Your task to perform on an android device: Open ESPN.com Image 0: 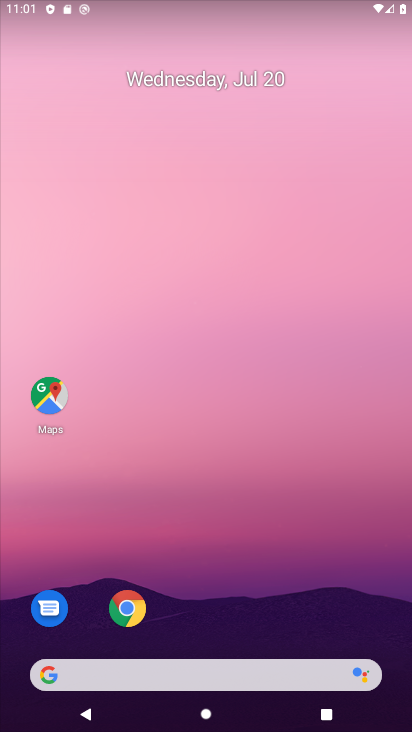
Step 0: drag from (354, 600) to (352, 156)
Your task to perform on an android device: Open ESPN.com Image 1: 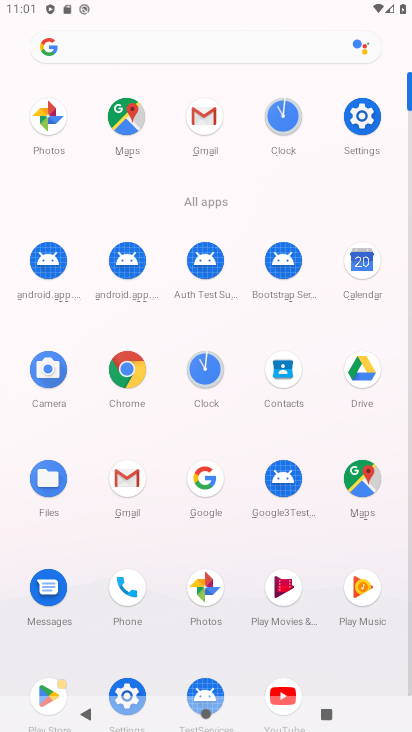
Step 1: click (139, 374)
Your task to perform on an android device: Open ESPN.com Image 2: 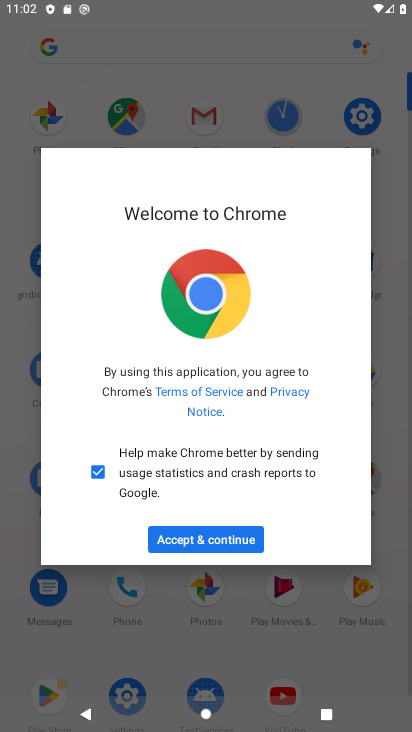
Step 2: click (214, 530)
Your task to perform on an android device: Open ESPN.com Image 3: 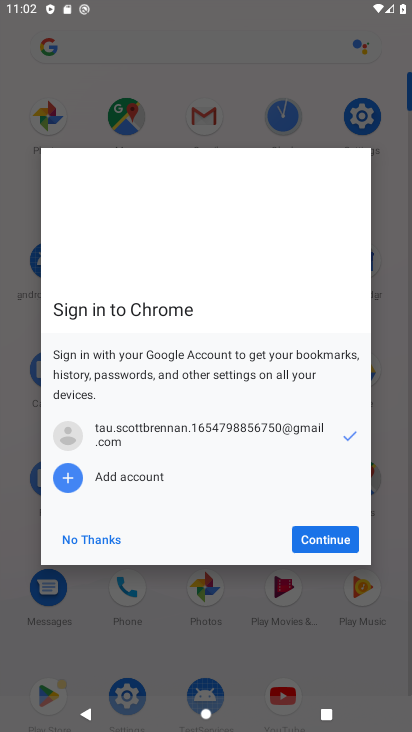
Step 3: click (310, 534)
Your task to perform on an android device: Open ESPN.com Image 4: 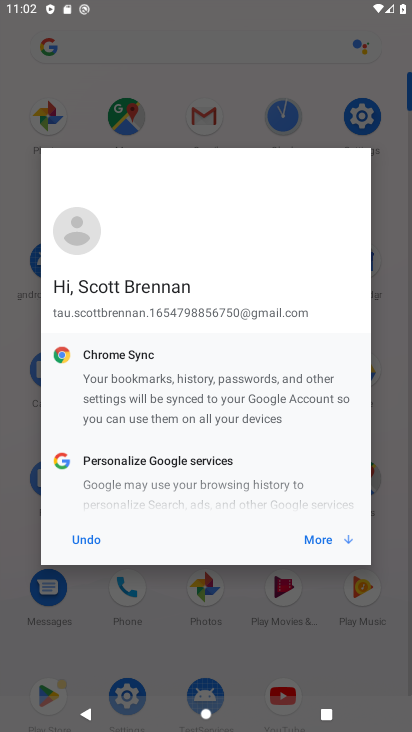
Step 4: click (323, 540)
Your task to perform on an android device: Open ESPN.com Image 5: 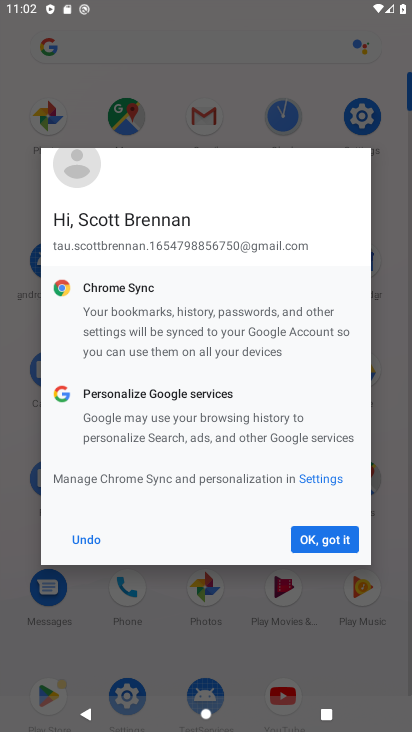
Step 5: click (337, 540)
Your task to perform on an android device: Open ESPN.com Image 6: 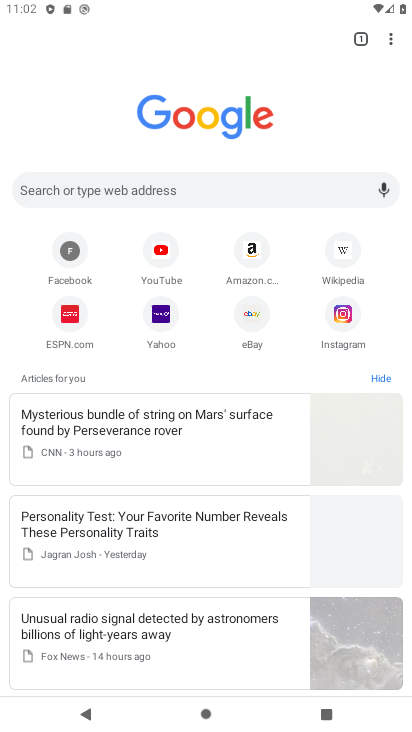
Step 6: click (243, 184)
Your task to perform on an android device: Open ESPN.com Image 7: 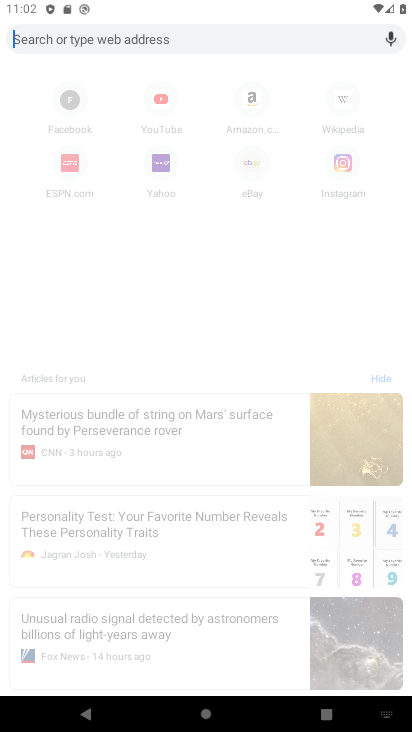
Step 7: type "espn.com"
Your task to perform on an android device: Open ESPN.com Image 8: 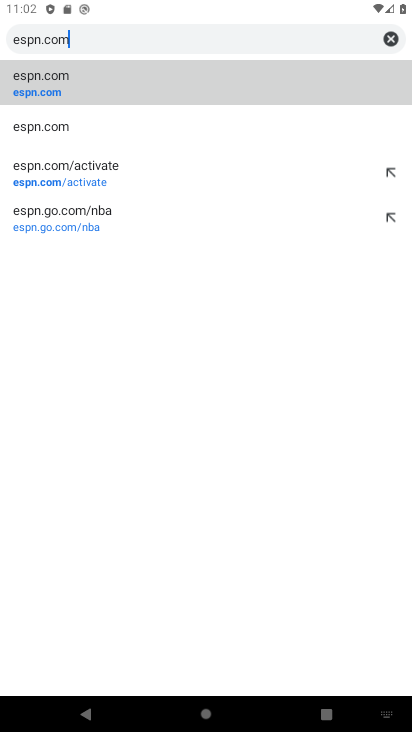
Step 8: click (80, 87)
Your task to perform on an android device: Open ESPN.com Image 9: 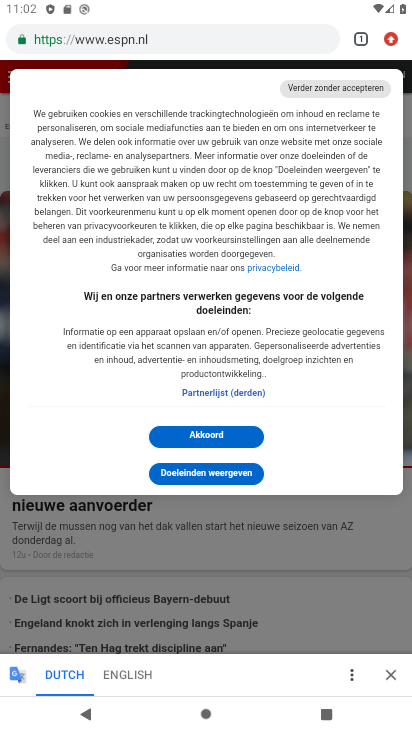
Step 9: task complete